Your task to perform on an android device: turn on the 12-hour format for clock Image 0: 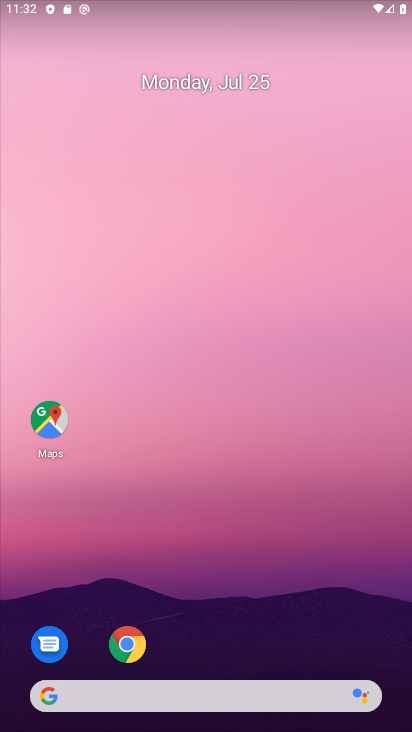
Step 0: drag from (209, 724) to (197, 141)
Your task to perform on an android device: turn on the 12-hour format for clock Image 1: 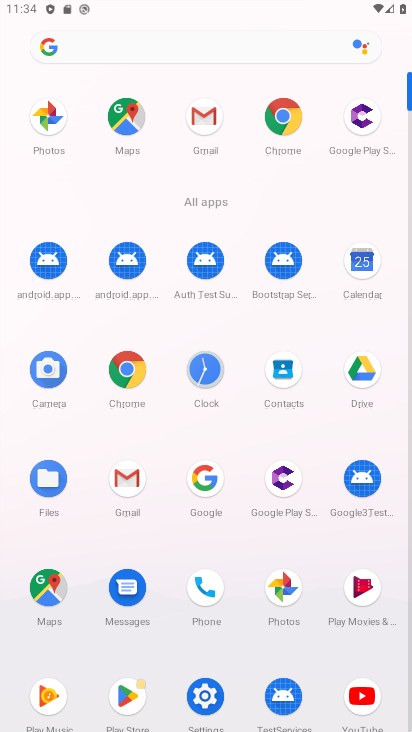
Step 1: click (205, 357)
Your task to perform on an android device: turn on the 12-hour format for clock Image 2: 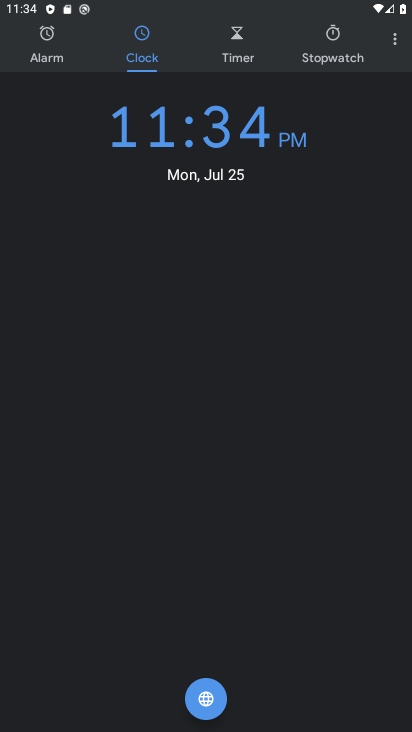
Step 2: click (397, 37)
Your task to perform on an android device: turn on the 12-hour format for clock Image 3: 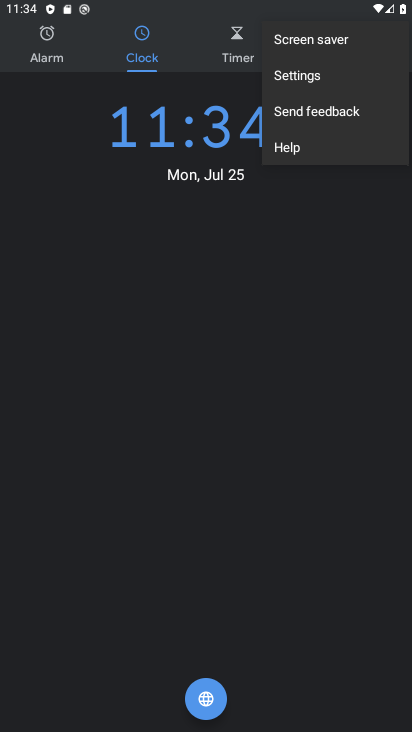
Step 3: click (327, 74)
Your task to perform on an android device: turn on the 12-hour format for clock Image 4: 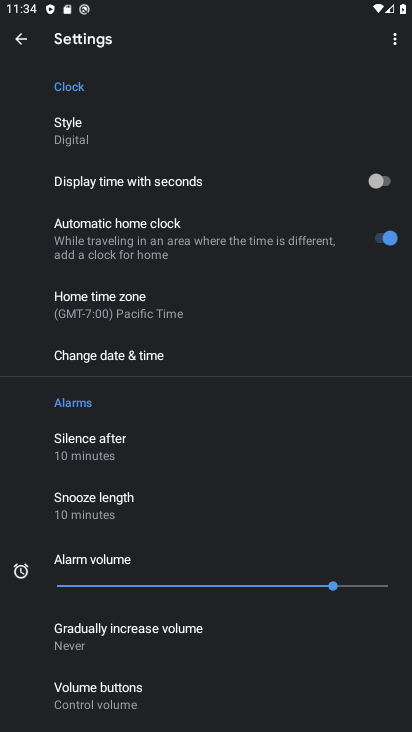
Step 4: click (237, 355)
Your task to perform on an android device: turn on the 12-hour format for clock Image 5: 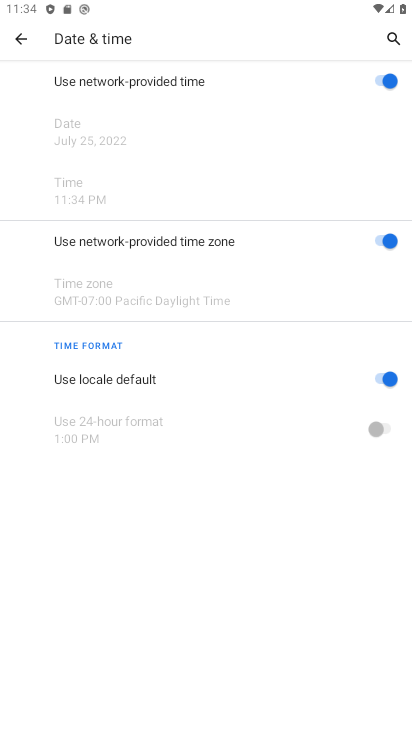
Step 5: task complete